Your task to perform on an android device: toggle location history Image 0: 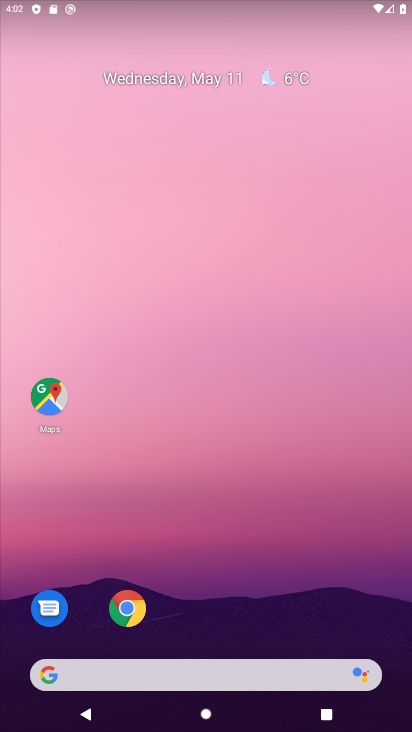
Step 0: drag from (228, 722) to (227, 91)
Your task to perform on an android device: toggle location history Image 1: 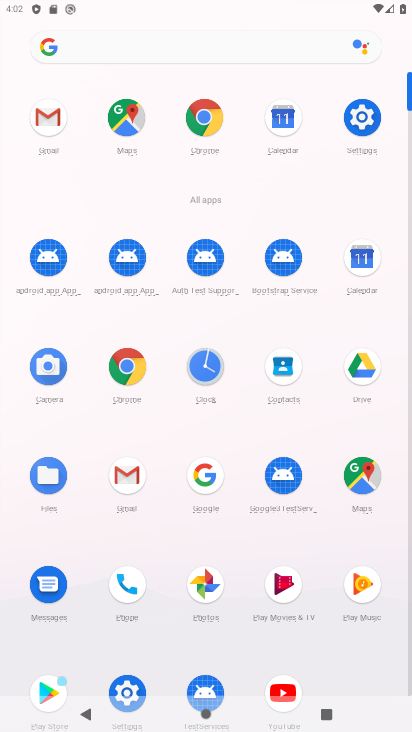
Step 1: click (366, 117)
Your task to perform on an android device: toggle location history Image 2: 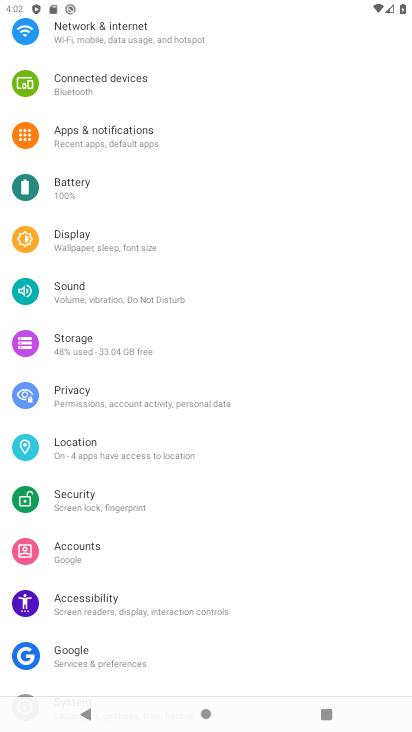
Step 2: click (82, 443)
Your task to perform on an android device: toggle location history Image 3: 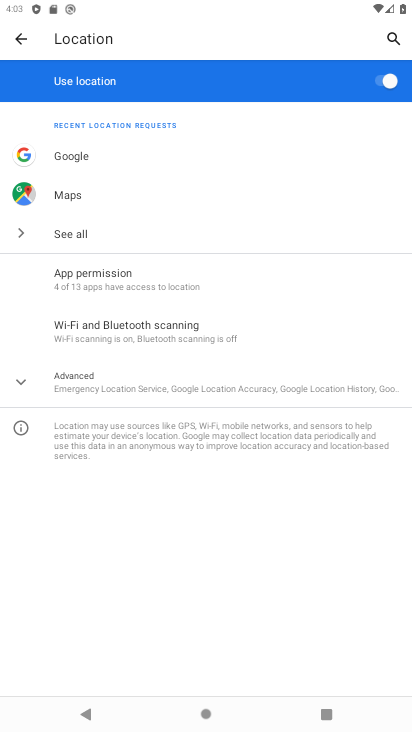
Step 3: click (83, 380)
Your task to perform on an android device: toggle location history Image 4: 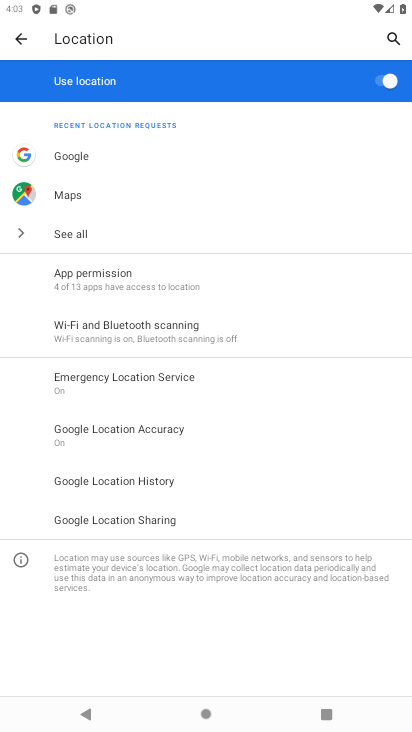
Step 4: click (97, 478)
Your task to perform on an android device: toggle location history Image 5: 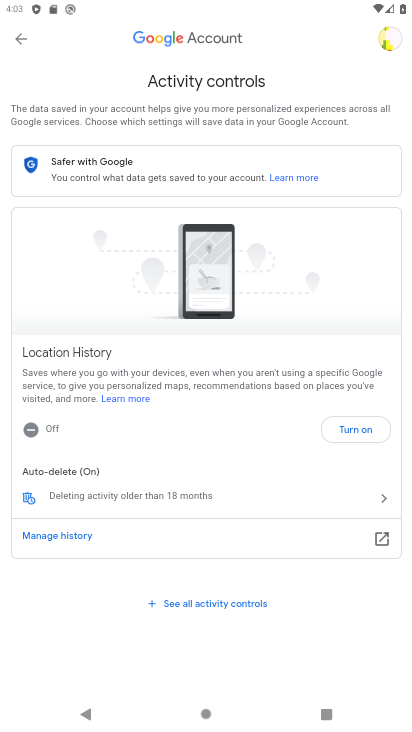
Step 5: click (349, 429)
Your task to perform on an android device: toggle location history Image 6: 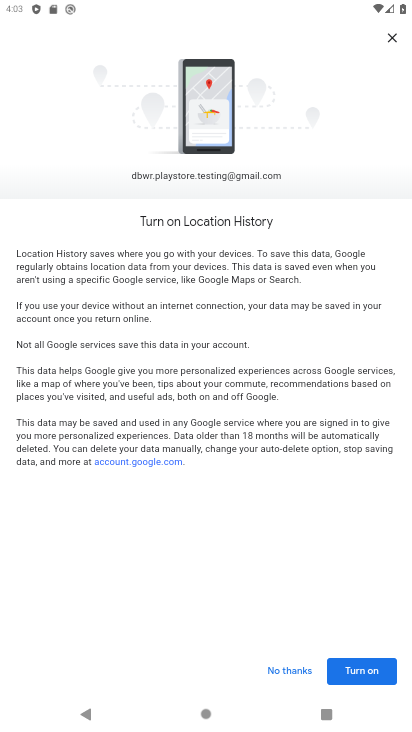
Step 6: click (360, 673)
Your task to perform on an android device: toggle location history Image 7: 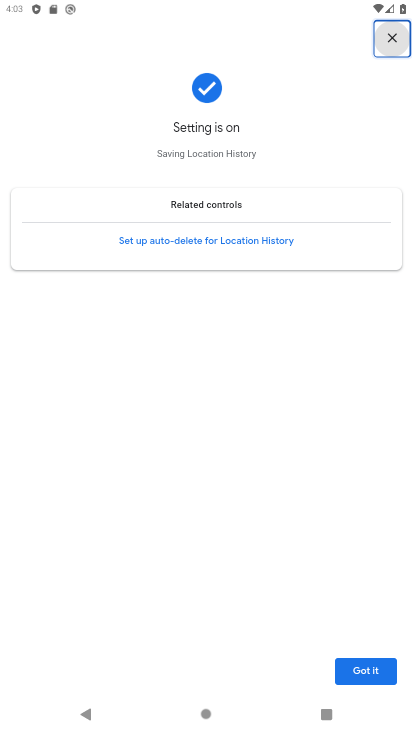
Step 7: click (360, 673)
Your task to perform on an android device: toggle location history Image 8: 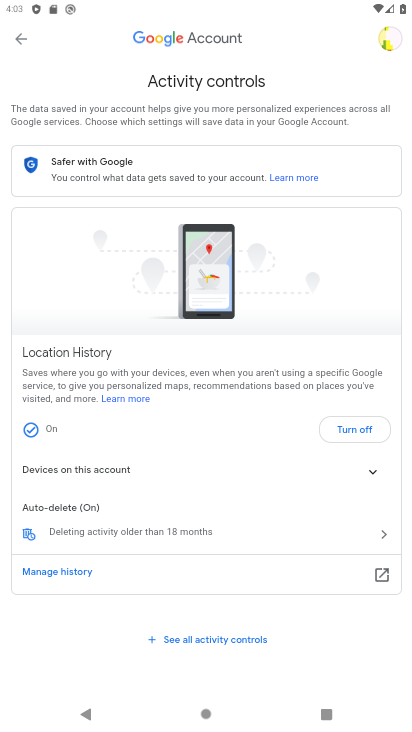
Step 8: task complete